Your task to perform on an android device: Open the stopwatch Image 0: 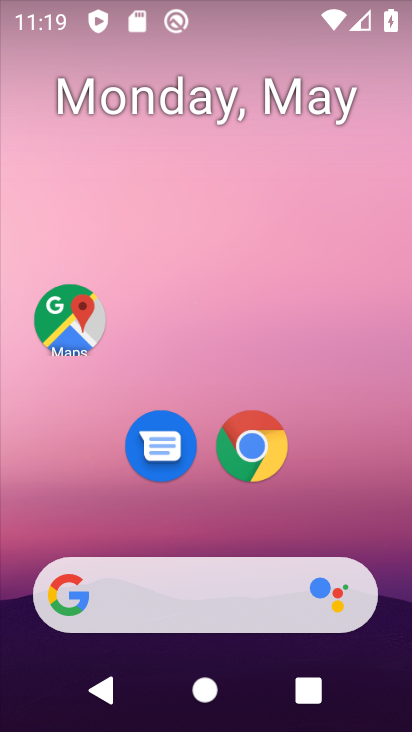
Step 0: drag from (331, 508) to (226, 141)
Your task to perform on an android device: Open the stopwatch Image 1: 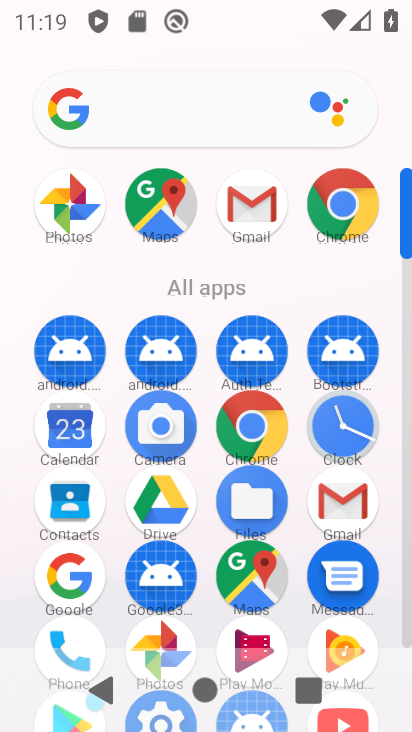
Step 1: click (356, 423)
Your task to perform on an android device: Open the stopwatch Image 2: 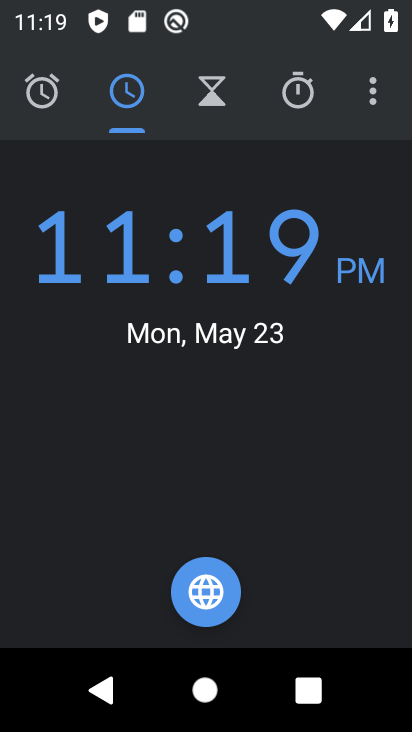
Step 2: click (294, 88)
Your task to perform on an android device: Open the stopwatch Image 3: 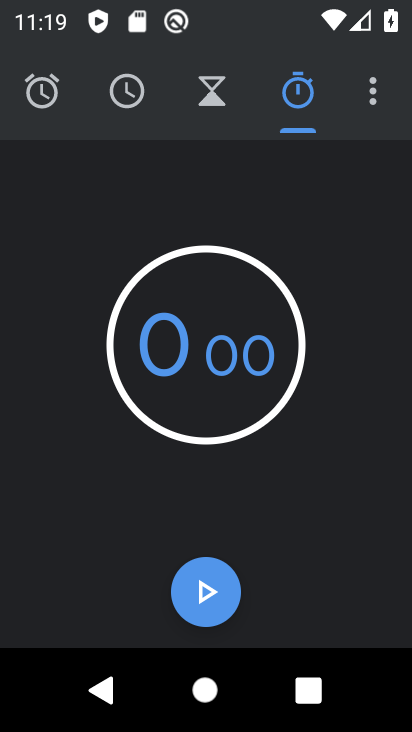
Step 3: task complete